Your task to perform on an android device: Open calendar and show me the third week of next month Image 0: 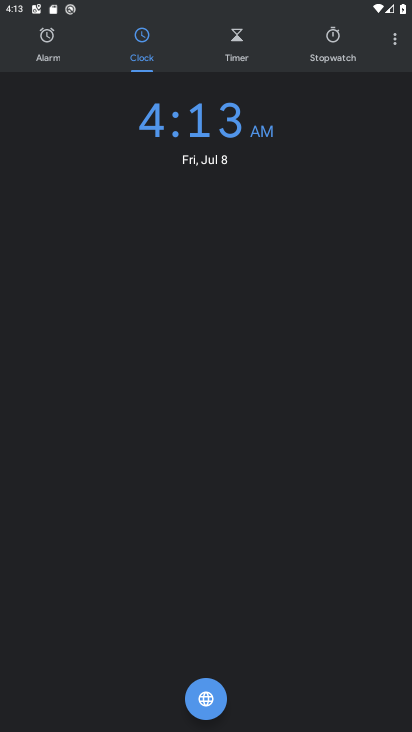
Step 0: press home button
Your task to perform on an android device: Open calendar and show me the third week of next month Image 1: 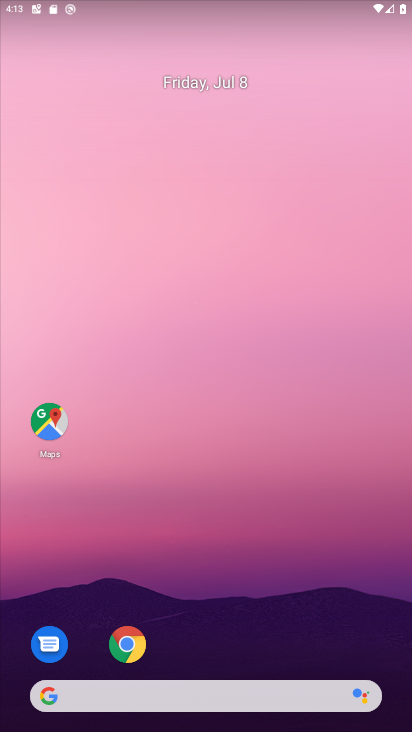
Step 1: drag from (307, 641) to (280, 199)
Your task to perform on an android device: Open calendar and show me the third week of next month Image 2: 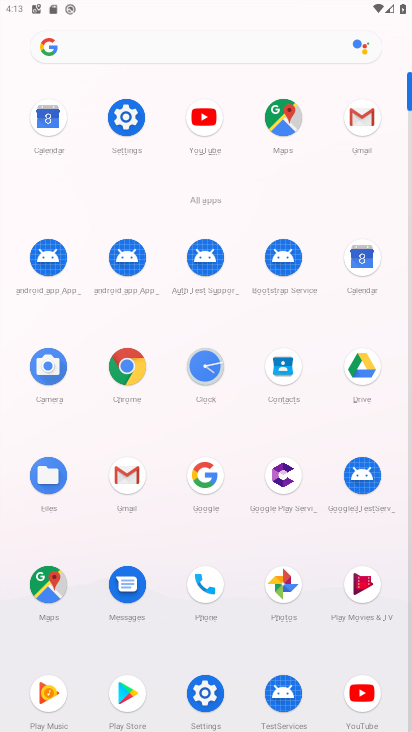
Step 2: click (360, 256)
Your task to perform on an android device: Open calendar and show me the third week of next month Image 3: 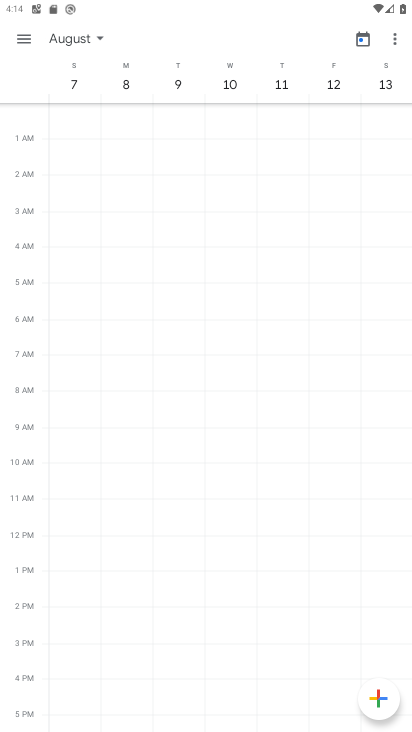
Step 3: click (100, 38)
Your task to perform on an android device: Open calendar and show me the third week of next month Image 4: 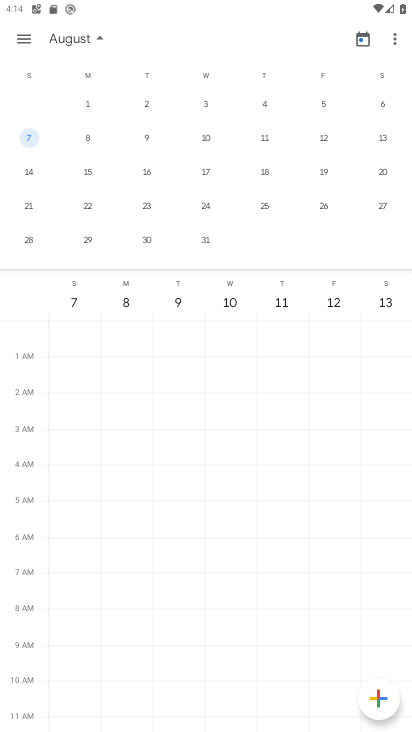
Step 4: click (22, 207)
Your task to perform on an android device: Open calendar and show me the third week of next month Image 5: 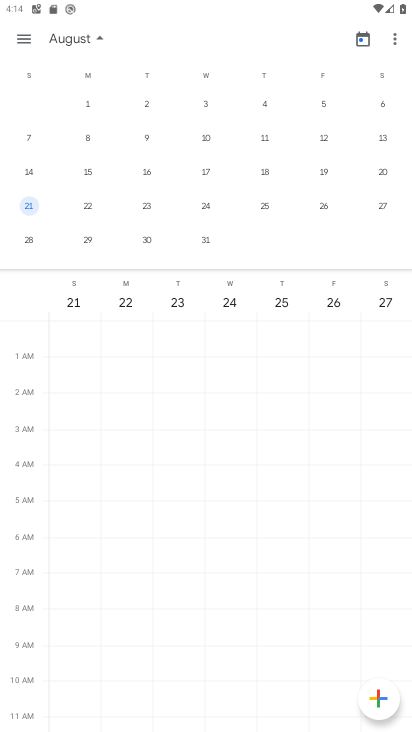
Step 5: task complete